Your task to perform on an android device: Go to Wikipedia Image 0: 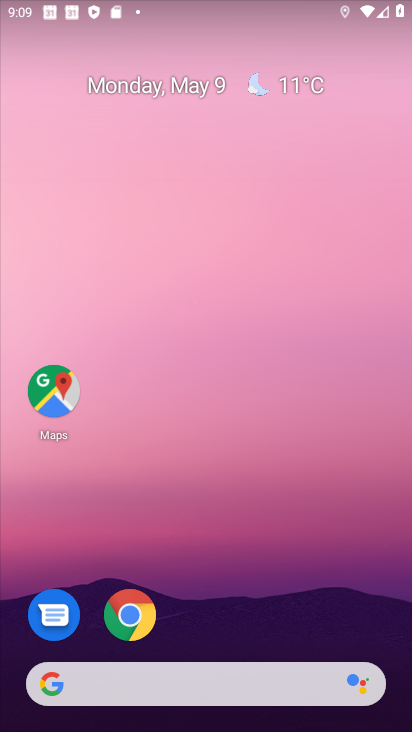
Step 0: drag from (238, 550) to (220, 8)
Your task to perform on an android device: Go to Wikipedia Image 1: 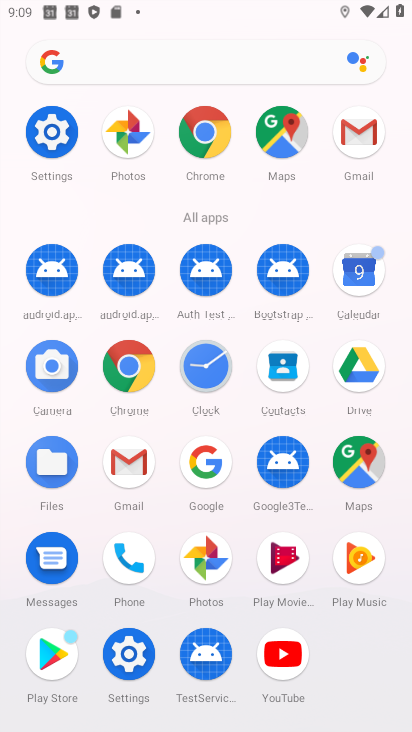
Step 1: click (125, 362)
Your task to perform on an android device: Go to Wikipedia Image 2: 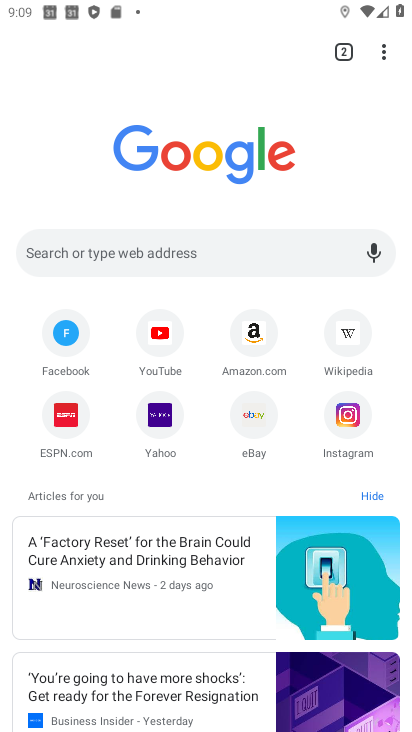
Step 2: click (239, 245)
Your task to perform on an android device: Go to Wikipedia Image 3: 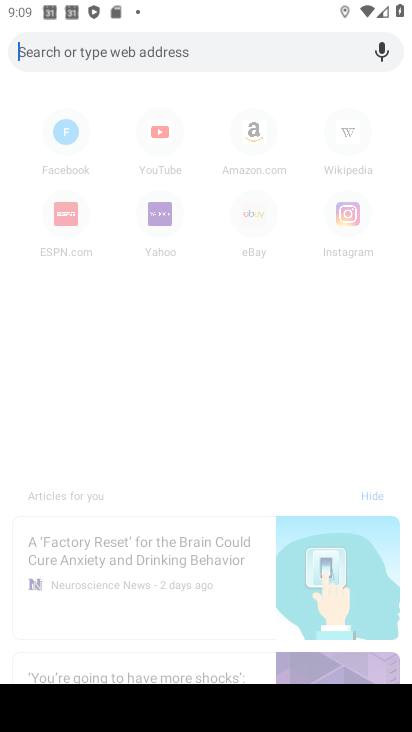
Step 3: click (336, 135)
Your task to perform on an android device: Go to Wikipedia Image 4: 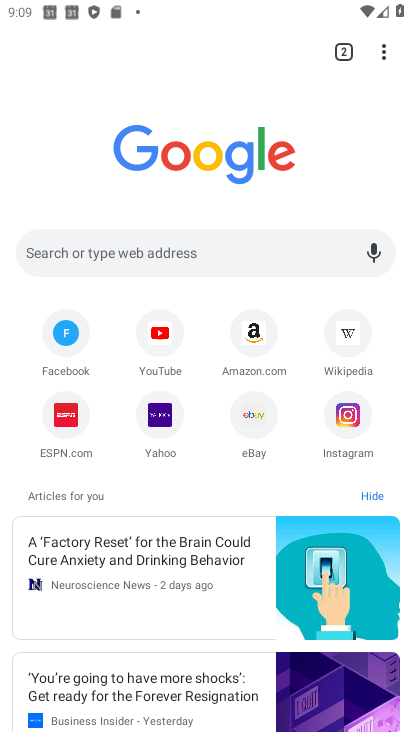
Step 4: click (339, 320)
Your task to perform on an android device: Go to Wikipedia Image 5: 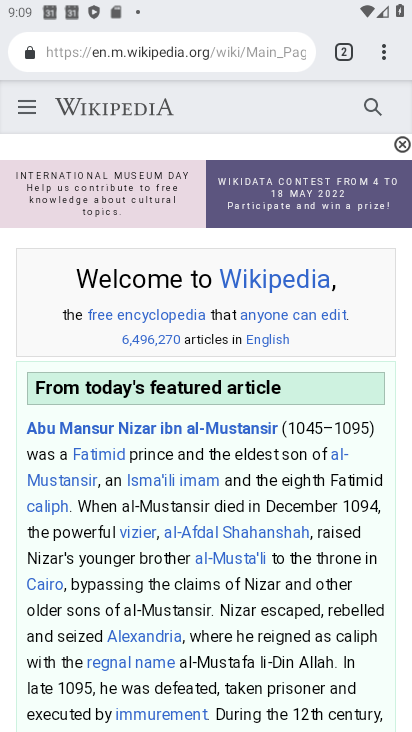
Step 5: task complete